Your task to perform on an android device: turn vacation reply on in the gmail app Image 0: 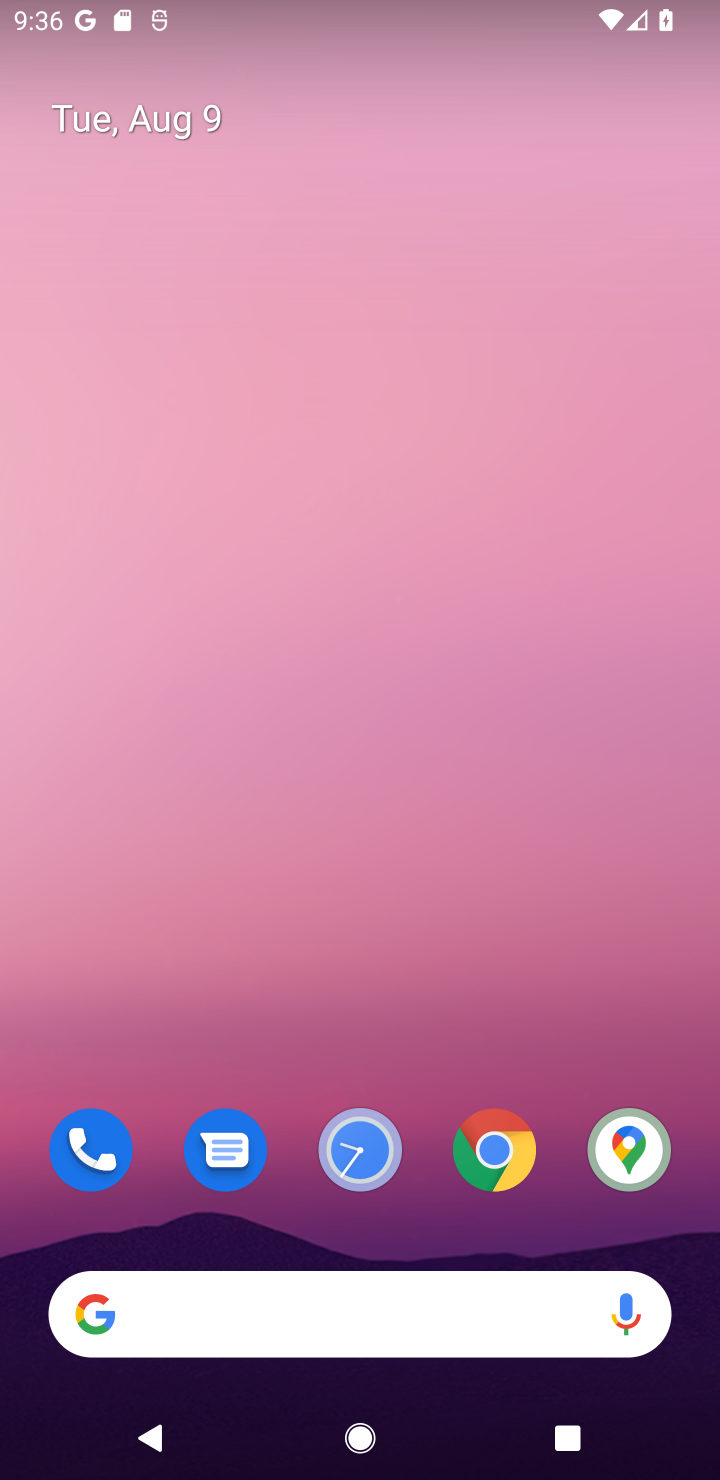
Step 0: drag from (457, 1075) to (477, 833)
Your task to perform on an android device: turn vacation reply on in the gmail app Image 1: 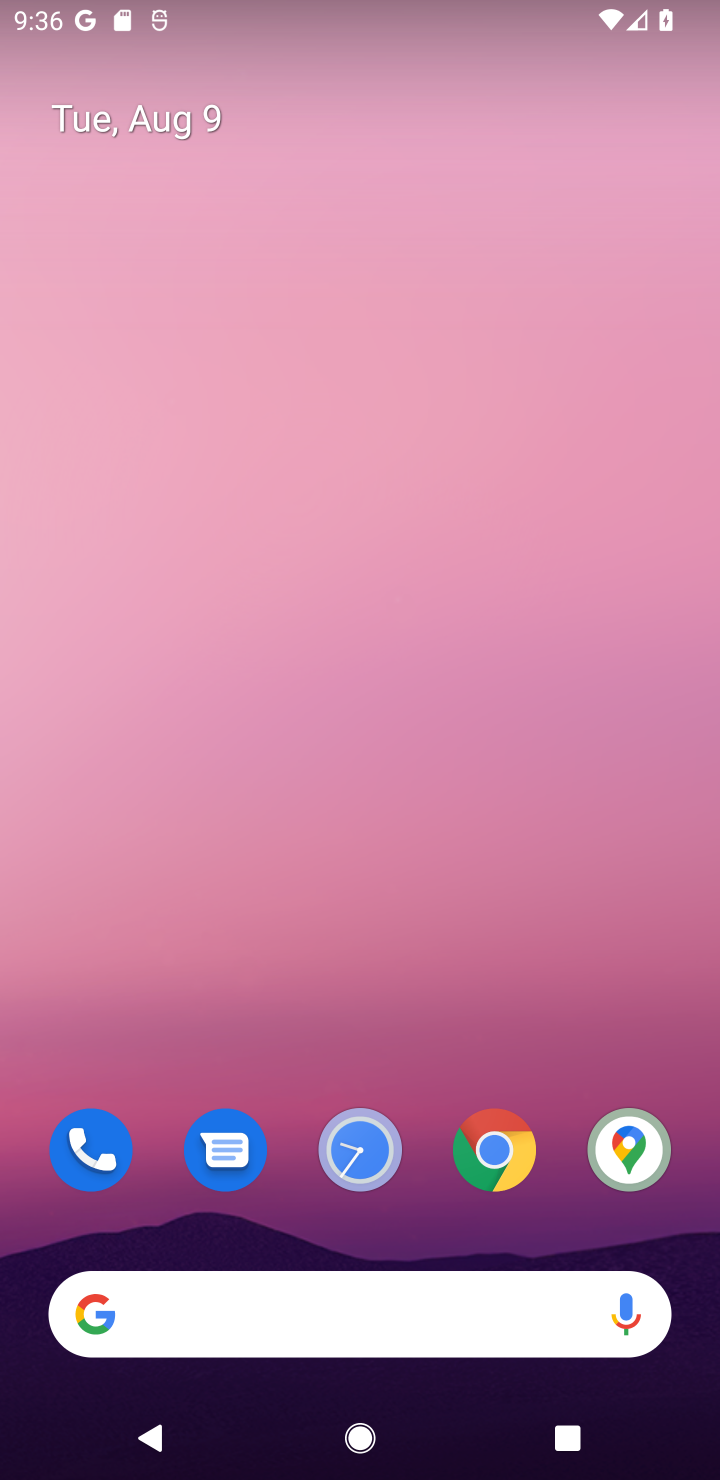
Step 1: drag from (470, 1215) to (492, 660)
Your task to perform on an android device: turn vacation reply on in the gmail app Image 2: 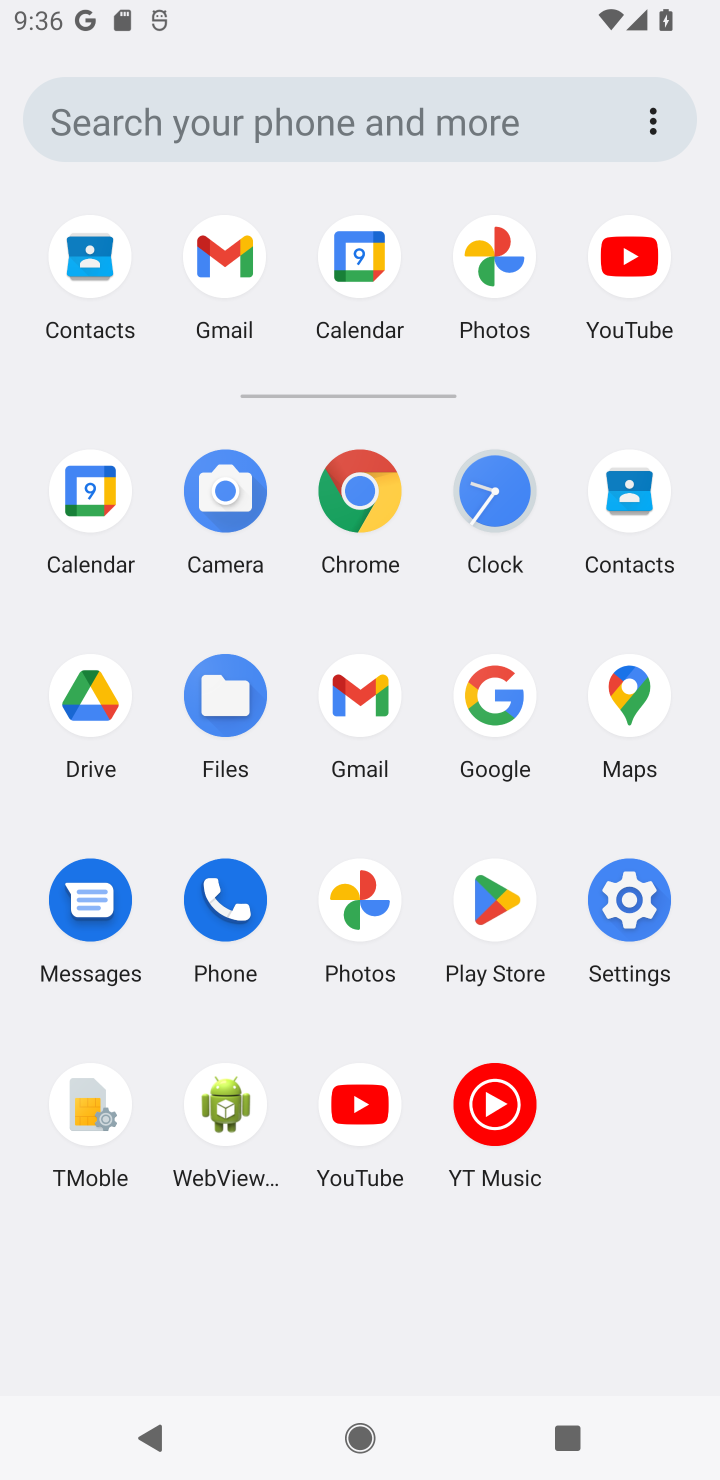
Step 2: click (377, 710)
Your task to perform on an android device: turn vacation reply on in the gmail app Image 3: 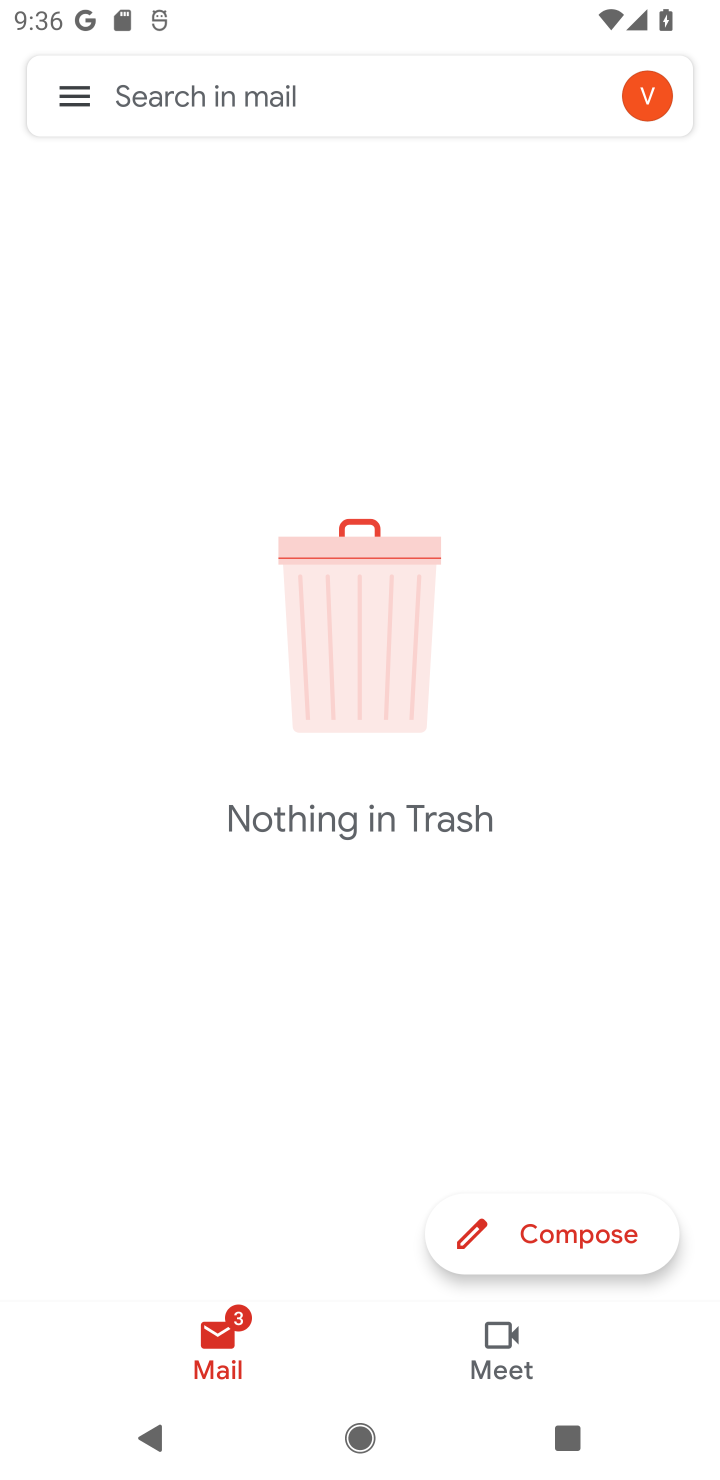
Step 3: click (95, 104)
Your task to perform on an android device: turn vacation reply on in the gmail app Image 4: 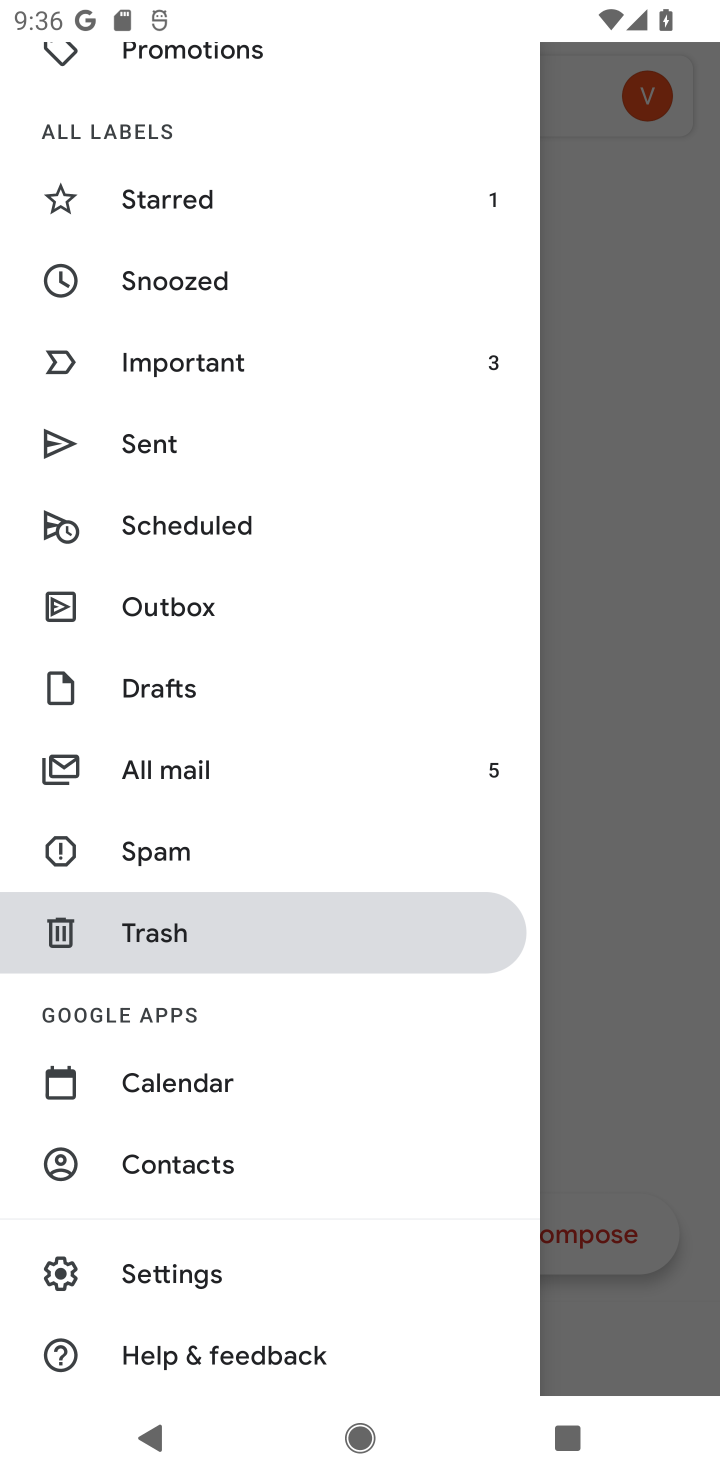
Step 4: drag from (311, 1073) to (342, 696)
Your task to perform on an android device: turn vacation reply on in the gmail app Image 5: 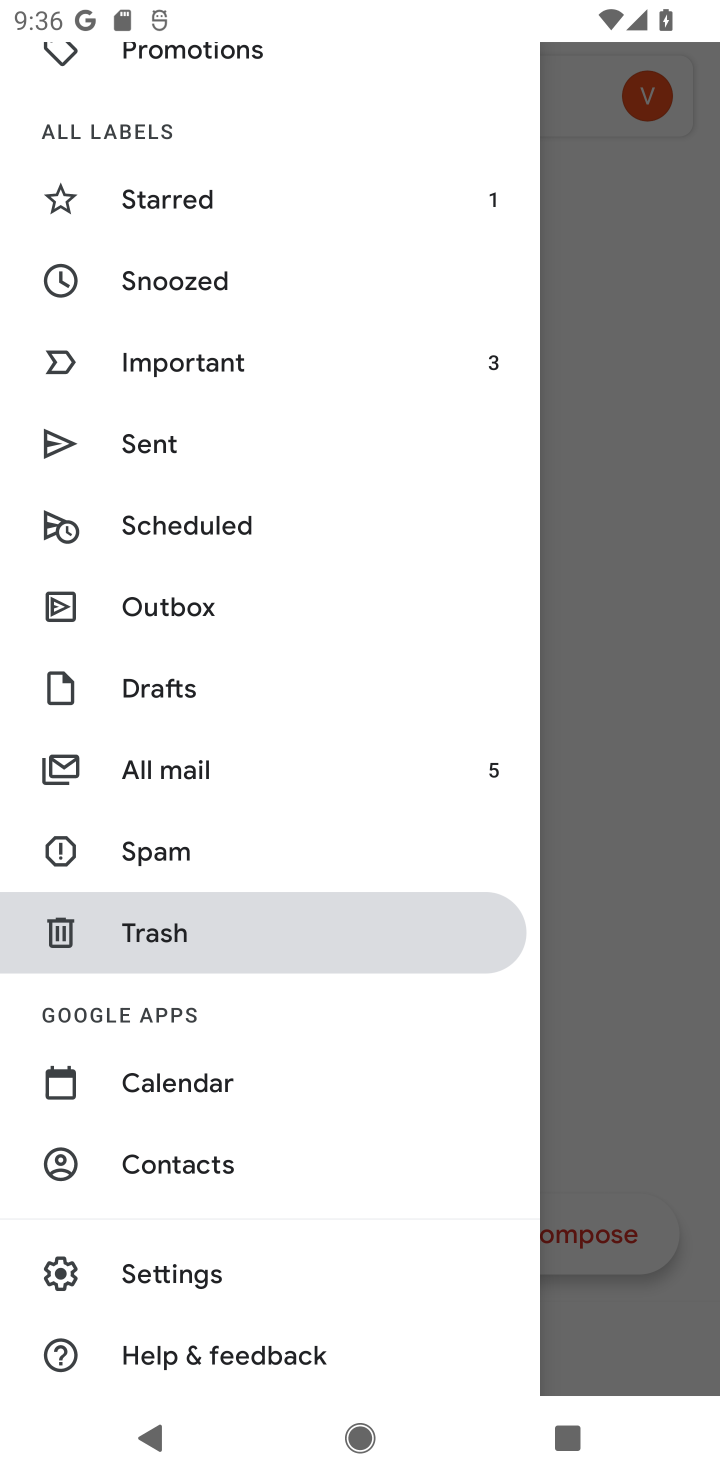
Step 5: click (136, 1265)
Your task to perform on an android device: turn vacation reply on in the gmail app Image 6: 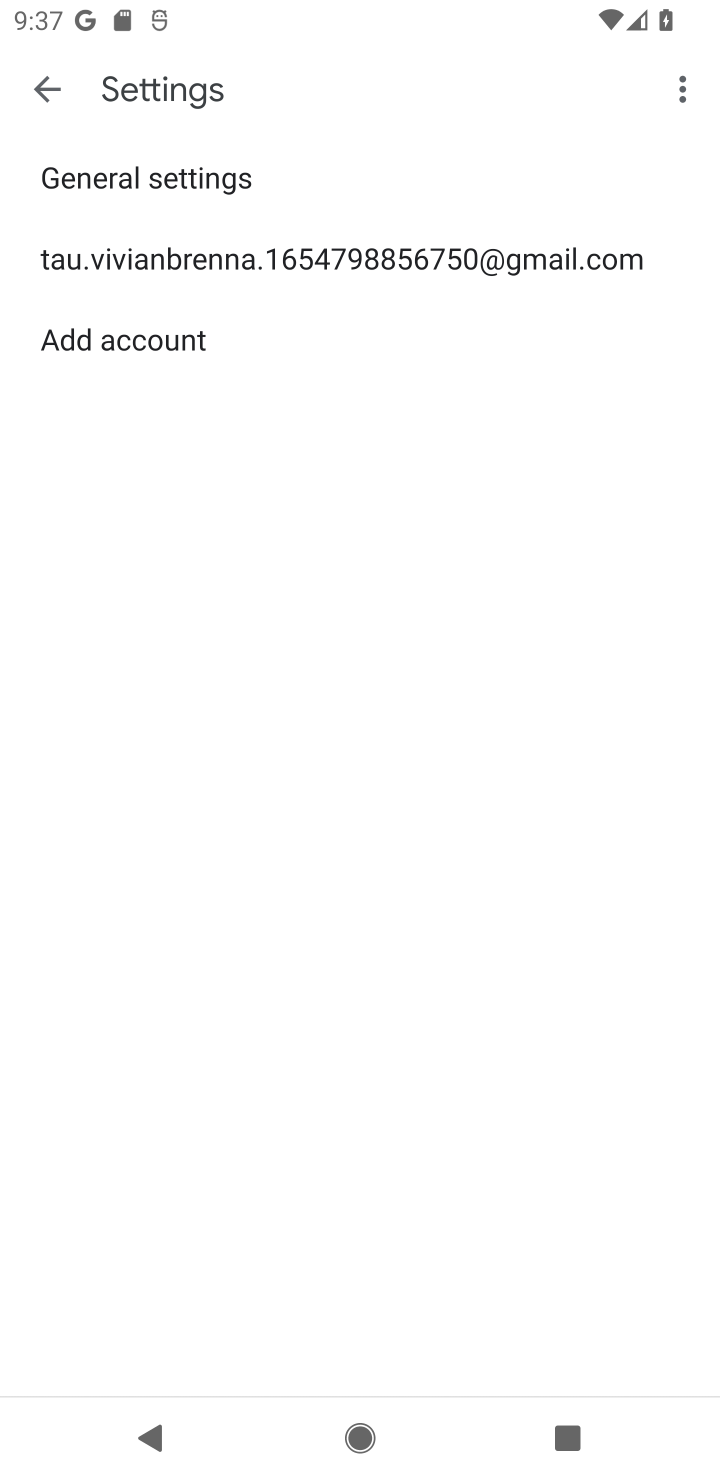
Step 6: click (359, 277)
Your task to perform on an android device: turn vacation reply on in the gmail app Image 7: 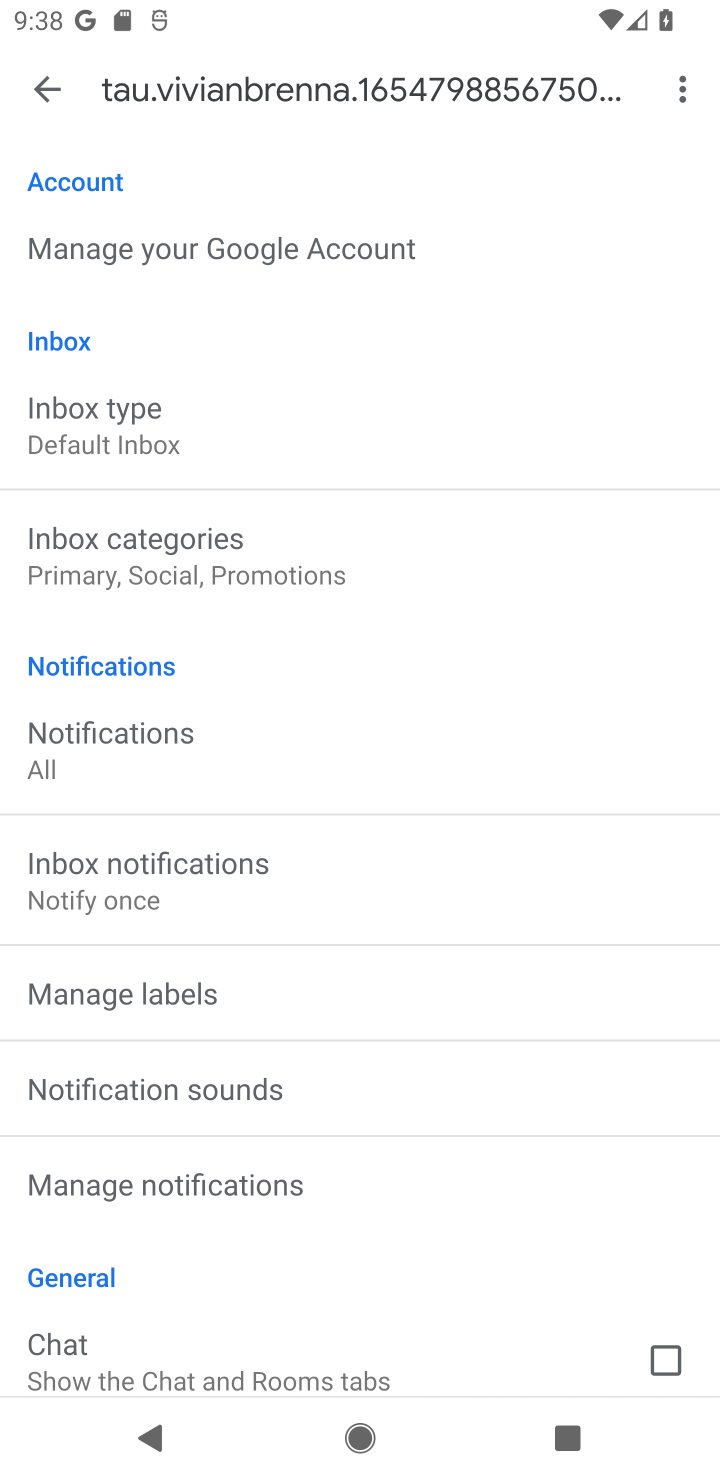
Step 7: drag from (220, 802) to (306, 296)
Your task to perform on an android device: turn vacation reply on in the gmail app Image 8: 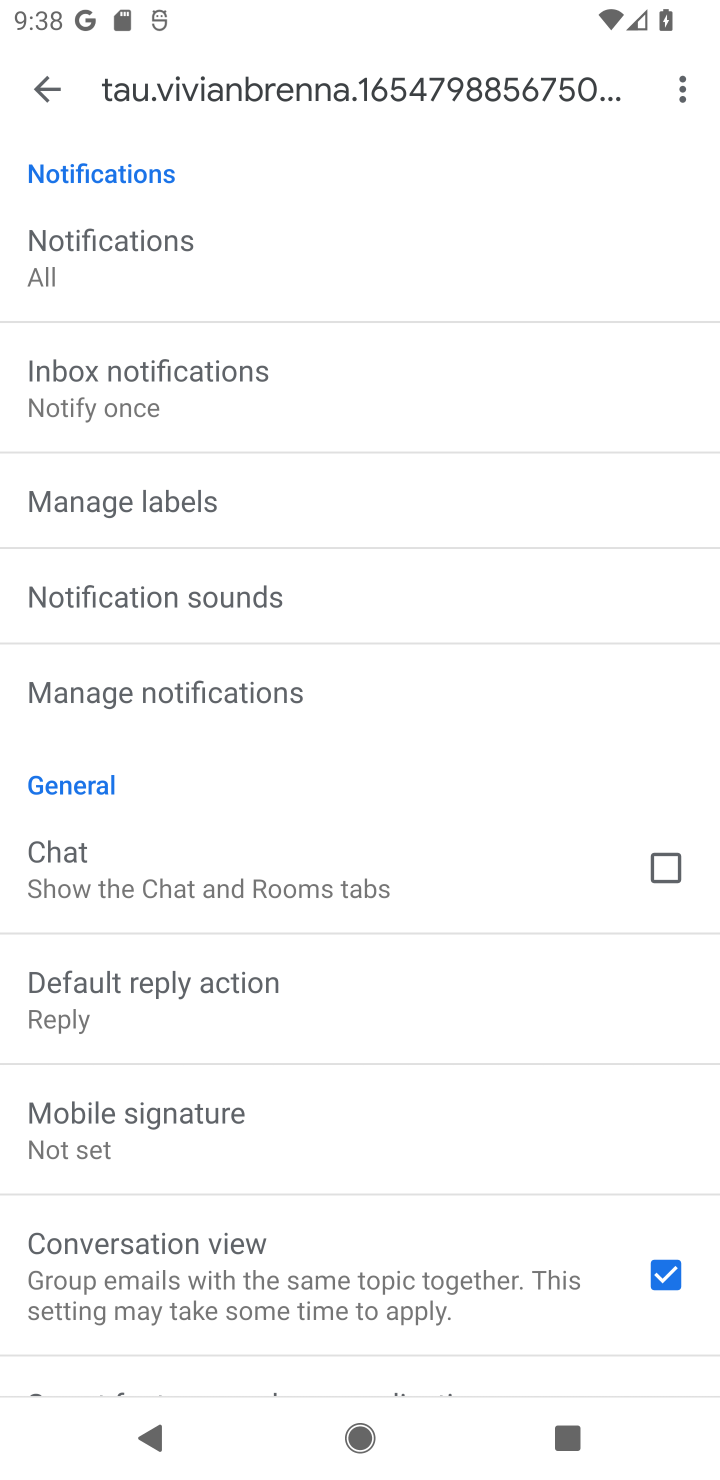
Step 8: drag from (298, 1116) to (430, 284)
Your task to perform on an android device: turn vacation reply on in the gmail app Image 9: 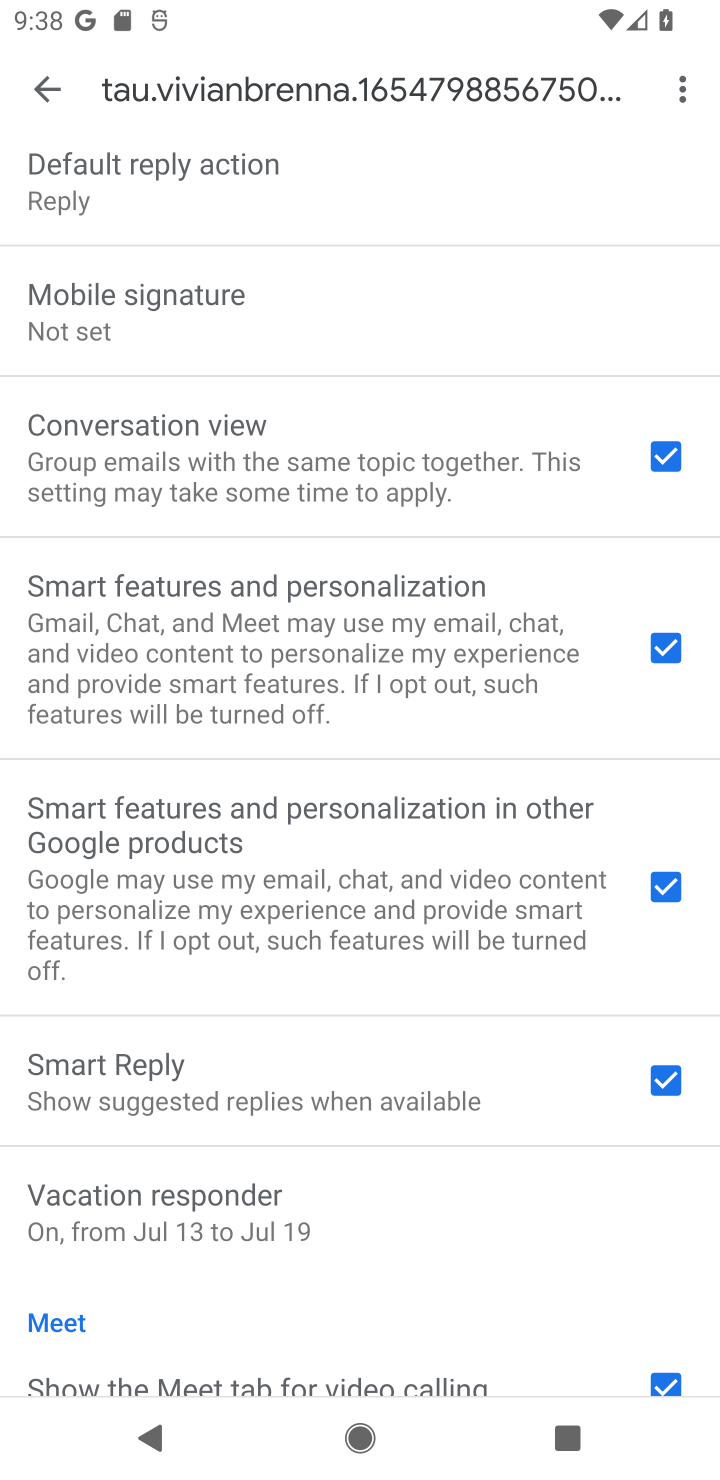
Step 9: drag from (310, 1165) to (304, 612)
Your task to perform on an android device: turn vacation reply on in the gmail app Image 10: 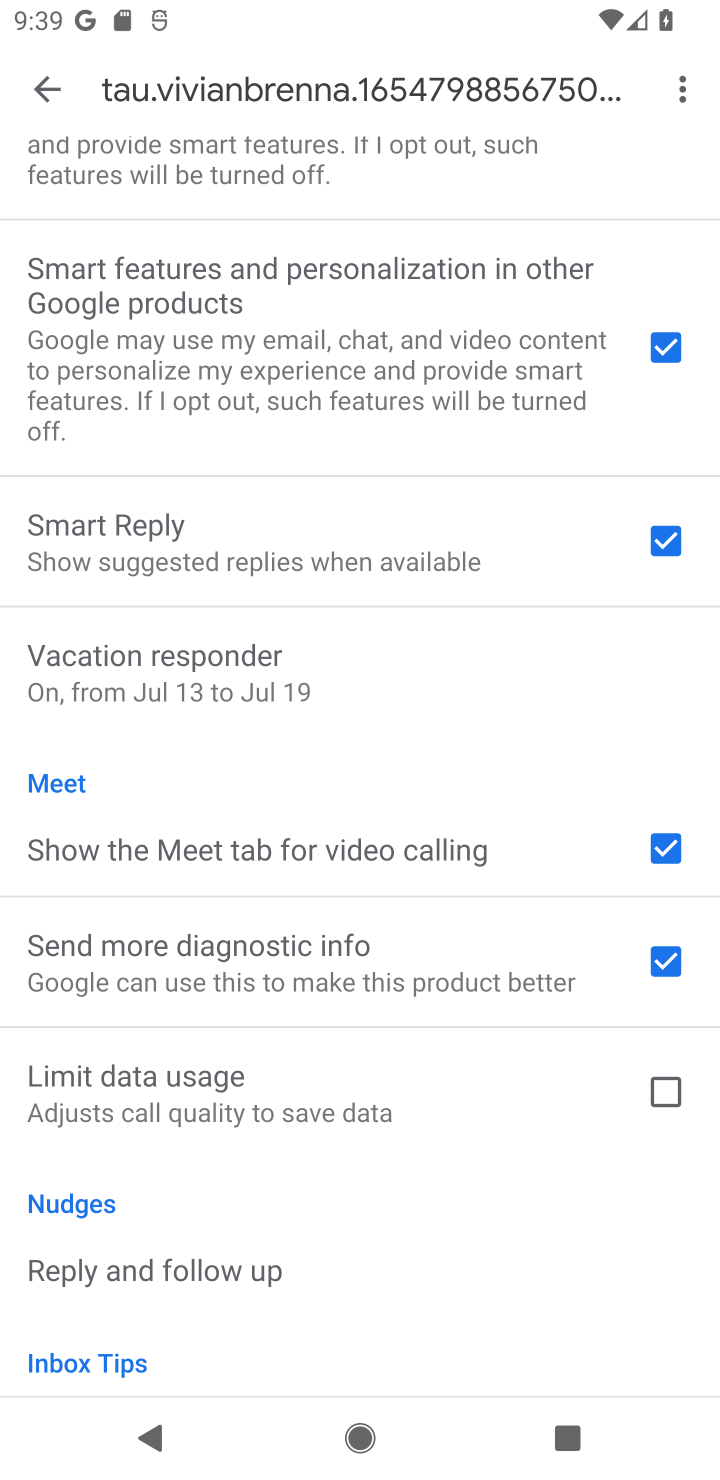
Step 10: click (261, 678)
Your task to perform on an android device: turn vacation reply on in the gmail app Image 11: 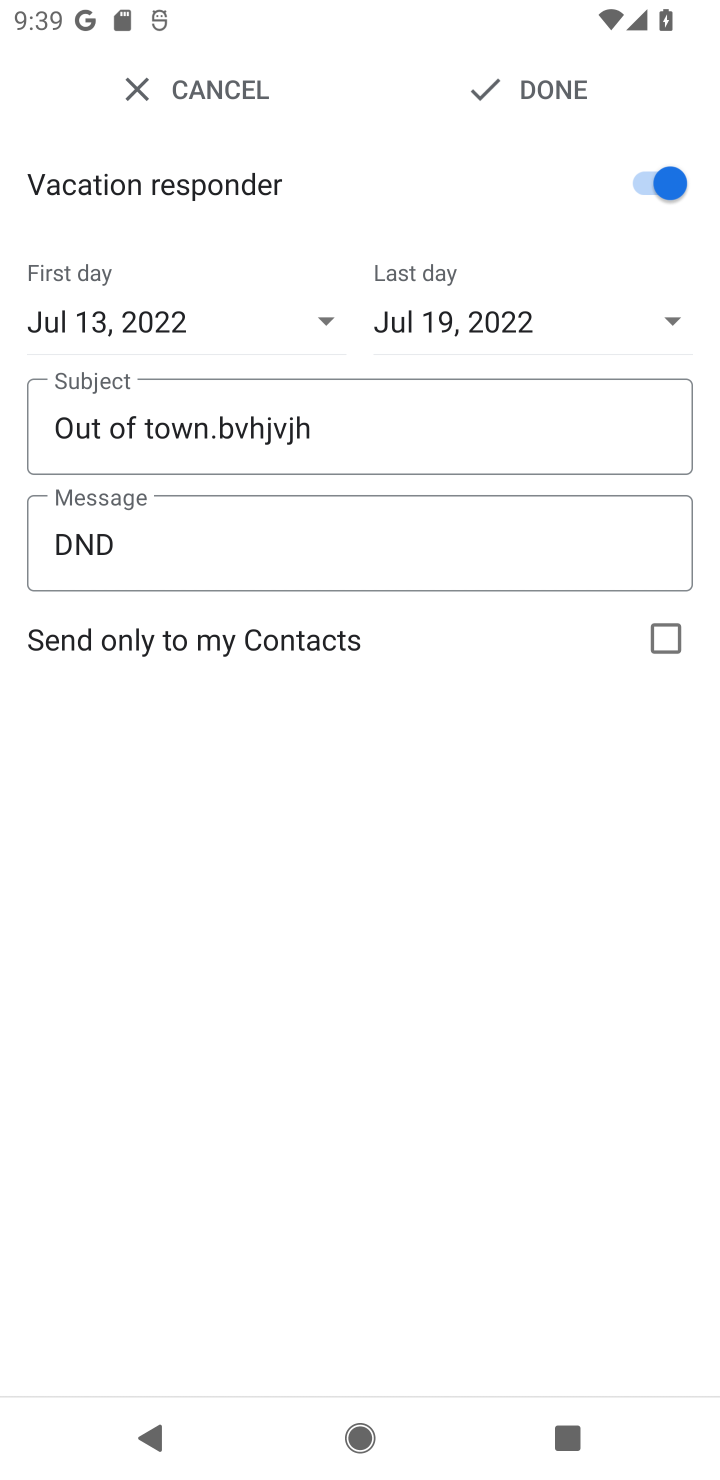
Step 11: task complete